Your task to perform on an android device: allow cookies in the chrome app Image 0: 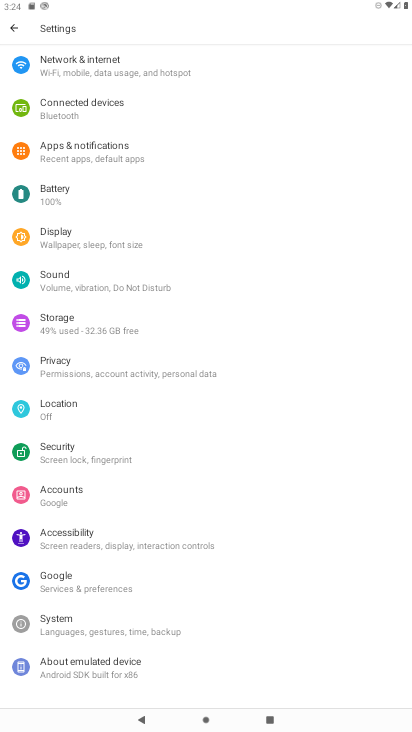
Step 0: press home button
Your task to perform on an android device: allow cookies in the chrome app Image 1: 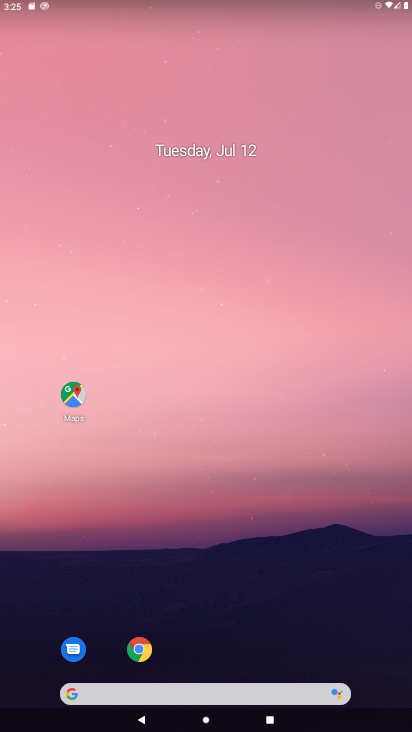
Step 1: drag from (264, 638) to (228, 139)
Your task to perform on an android device: allow cookies in the chrome app Image 2: 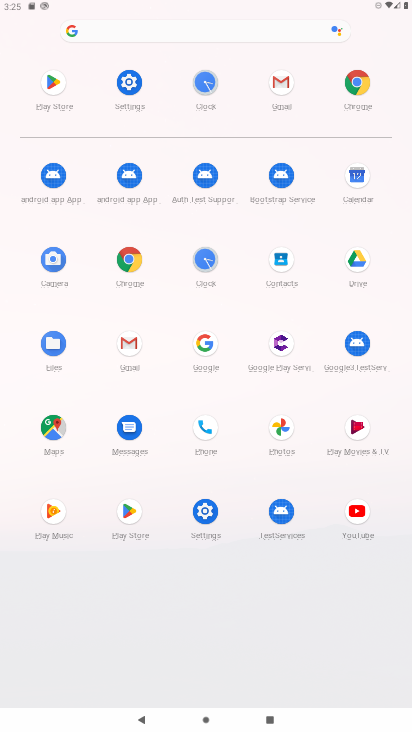
Step 2: click (355, 86)
Your task to perform on an android device: allow cookies in the chrome app Image 3: 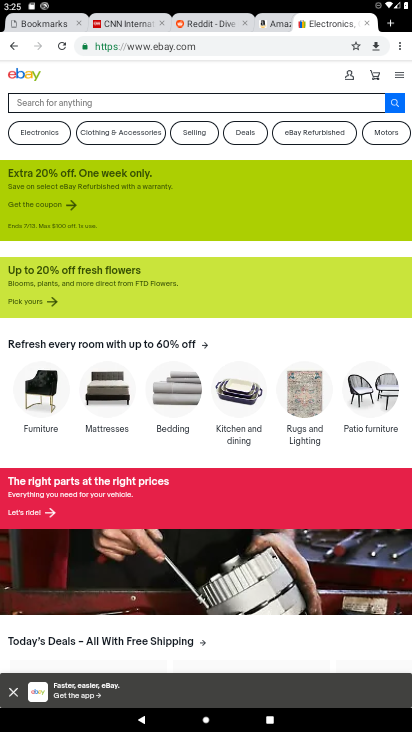
Step 3: click (394, 53)
Your task to perform on an android device: allow cookies in the chrome app Image 4: 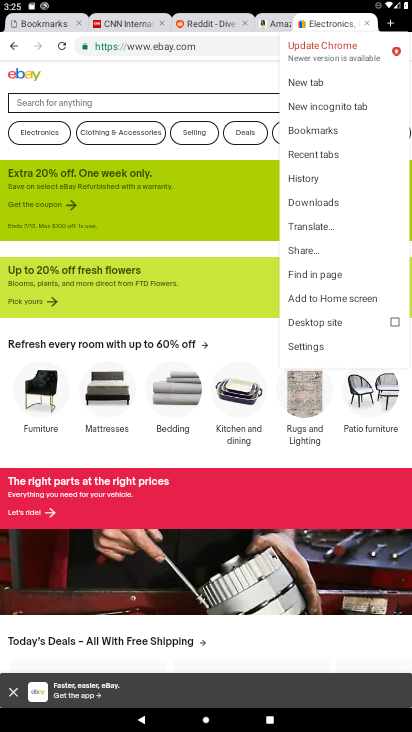
Step 4: click (305, 340)
Your task to perform on an android device: allow cookies in the chrome app Image 5: 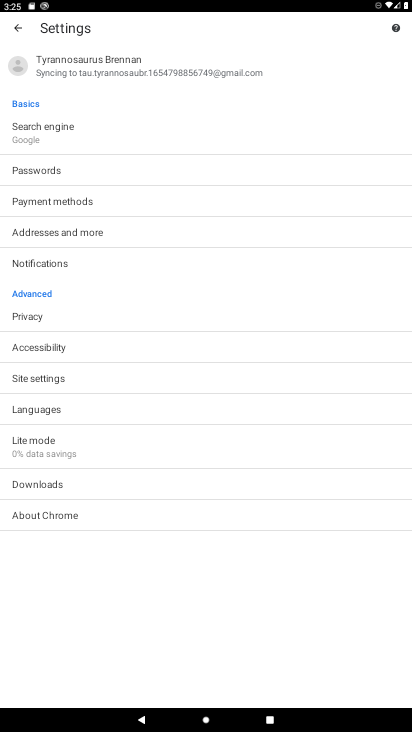
Step 5: task complete